Your task to perform on an android device: Go to Google maps Image 0: 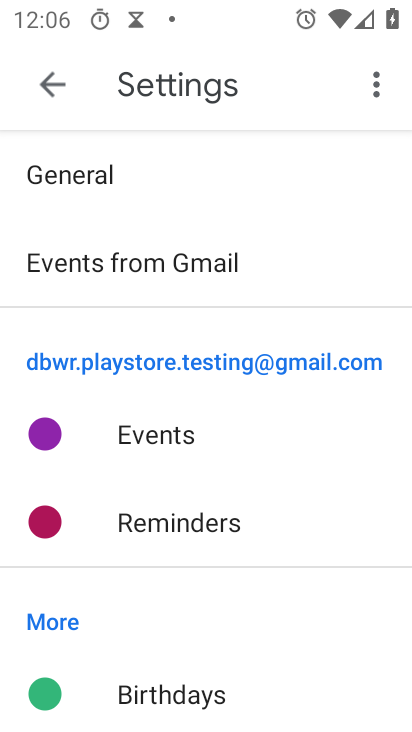
Step 0: press home button
Your task to perform on an android device: Go to Google maps Image 1: 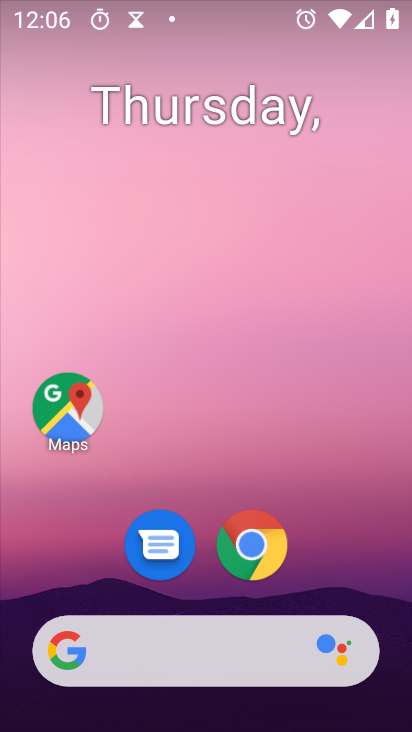
Step 1: click (76, 417)
Your task to perform on an android device: Go to Google maps Image 2: 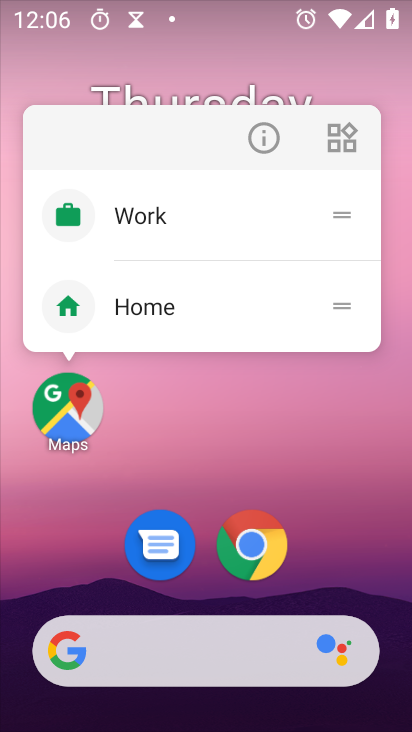
Step 2: click (55, 413)
Your task to perform on an android device: Go to Google maps Image 3: 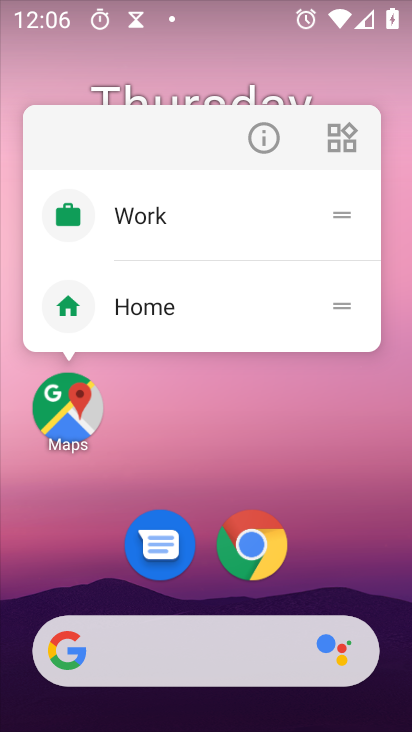
Step 3: click (67, 411)
Your task to perform on an android device: Go to Google maps Image 4: 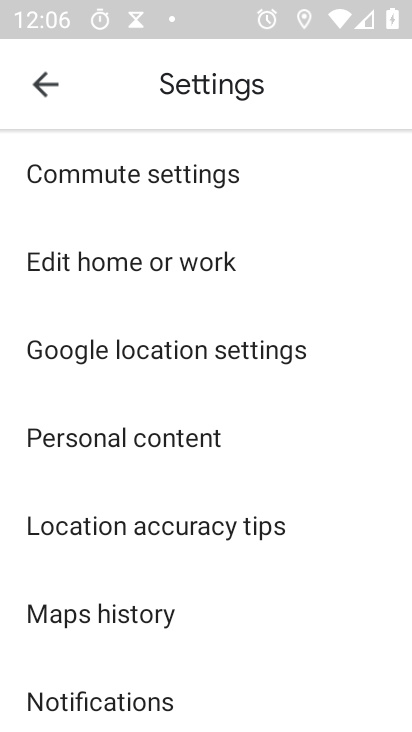
Step 4: click (56, 82)
Your task to perform on an android device: Go to Google maps Image 5: 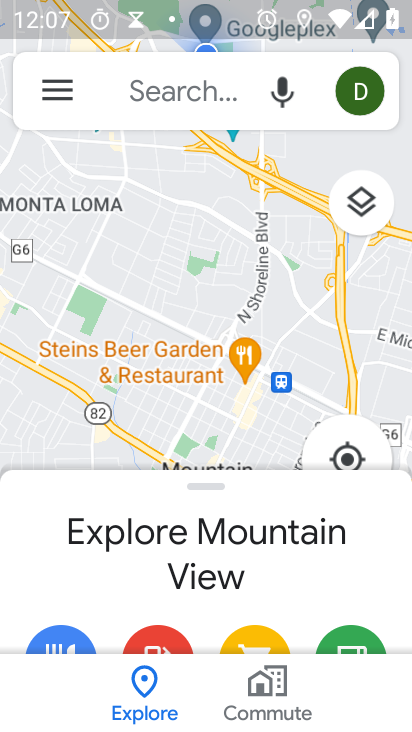
Step 5: task complete